Your task to perform on an android device: Check the news Image 0: 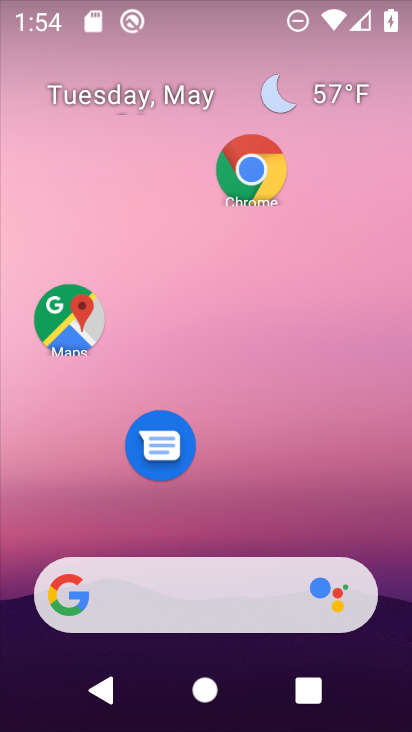
Step 0: drag from (4, 257) to (324, 268)
Your task to perform on an android device: Check the news Image 1: 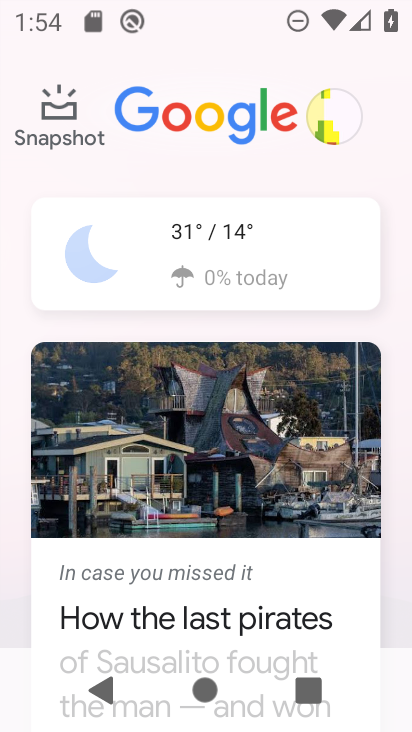
Step 1: task complete